Your task to perform on an android device: Go to display settings Image 0: 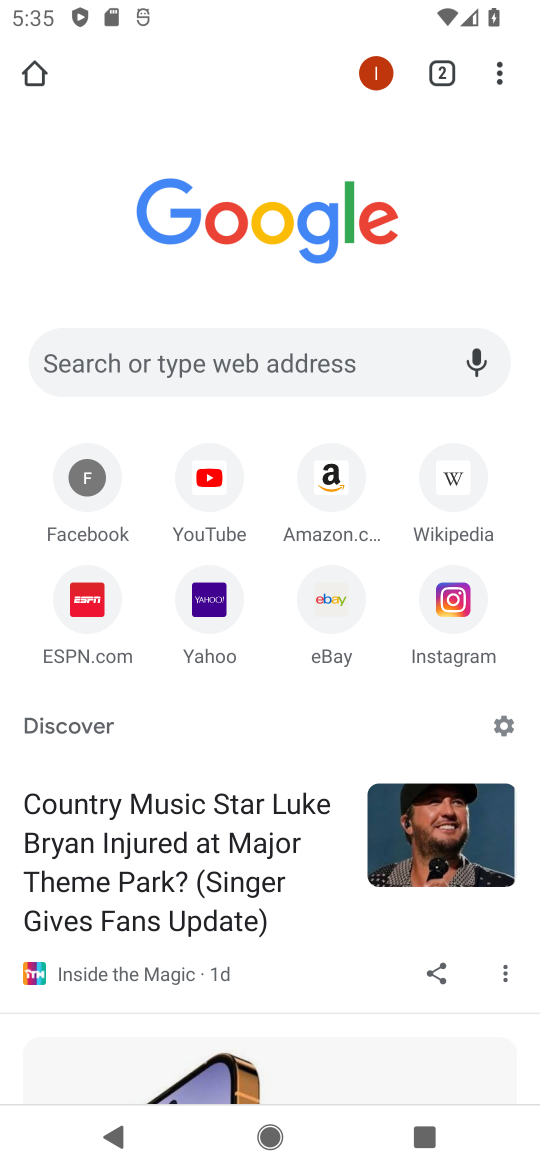
Step 0: press home button
Your task to perform on an android device: Go to display settings Image 1: 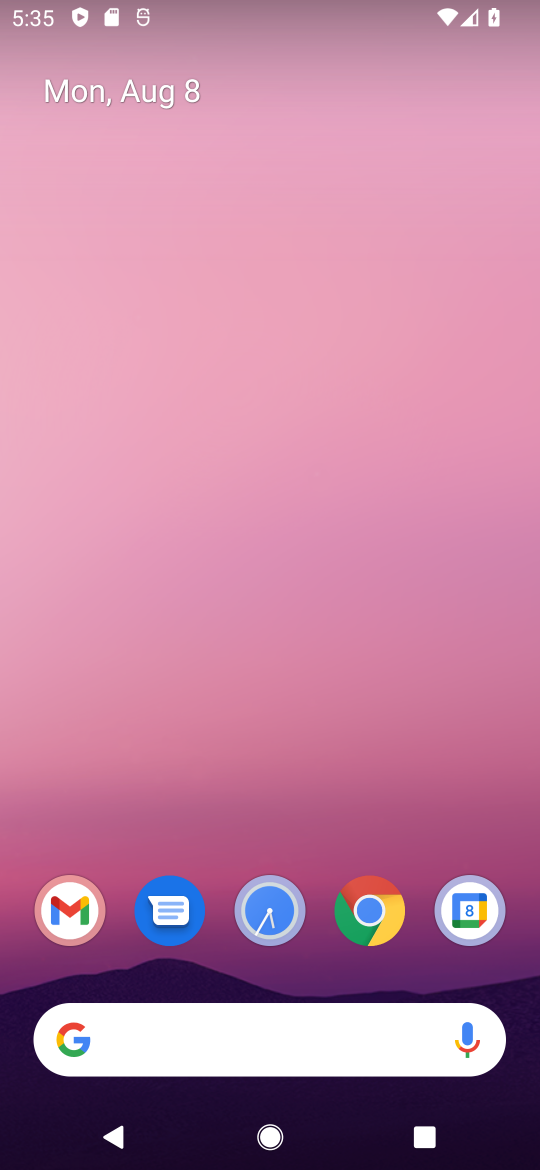
Step 1: drag from (180, 1046) to (238, 365)
Your task to perform on an android device: Go to display settings Image 2: 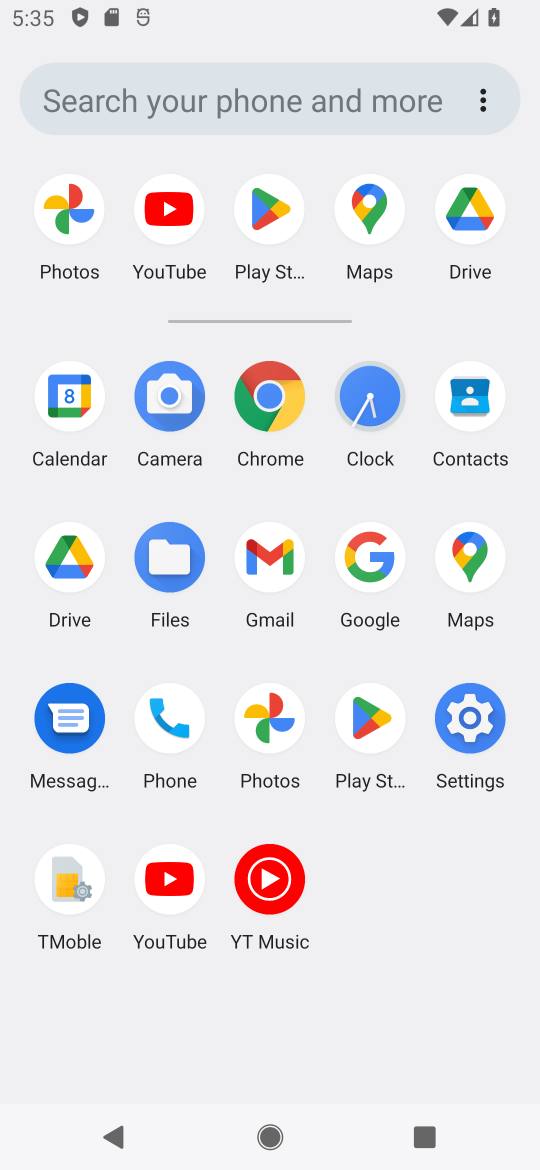
Step 2: click (471, 719)
Your task to perform on an android device: Go to display settings Image 3: 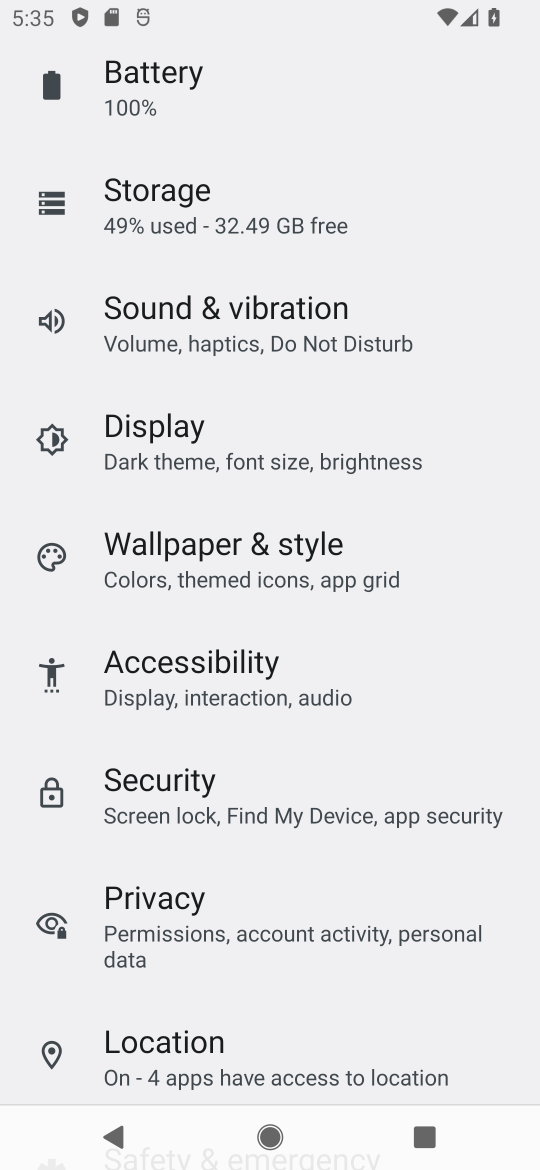
Step 3: click (207, 458)
Your task to perform on an android device: Go to display settings Image 4: 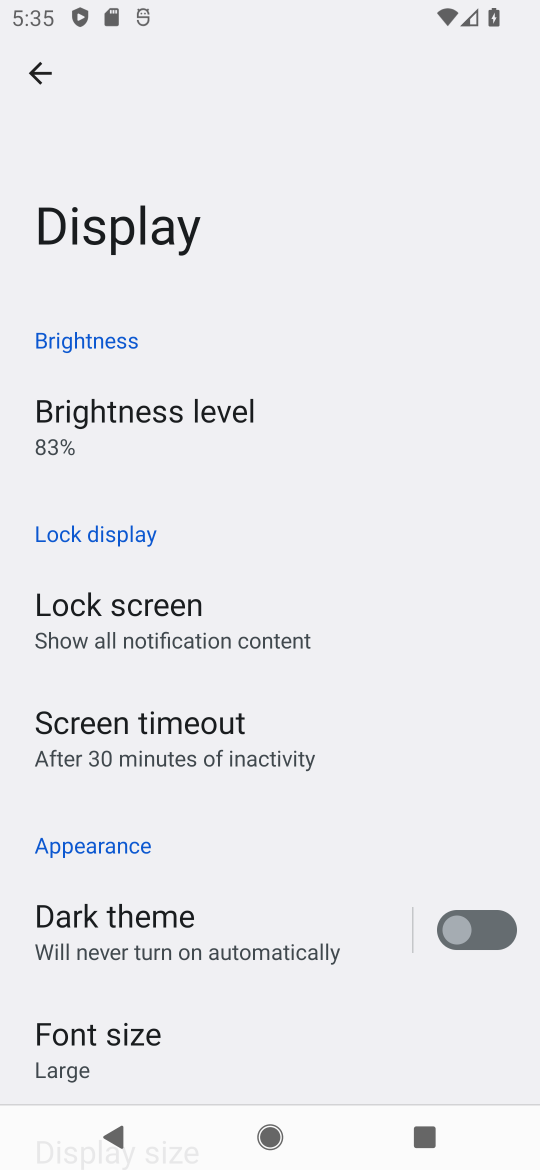
Step 4: task complete